Your task to perform on an android device: delete browsing data in the chrome app Image 0: 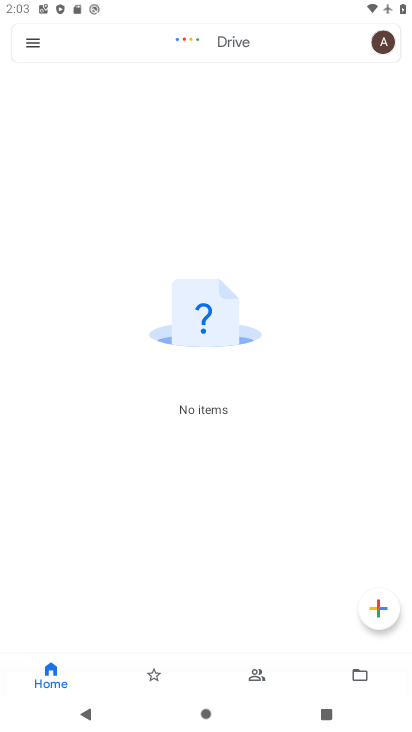
Step 0: press home button
Your task to perform on an android device: delete browsing data in the chrome app Image 1: 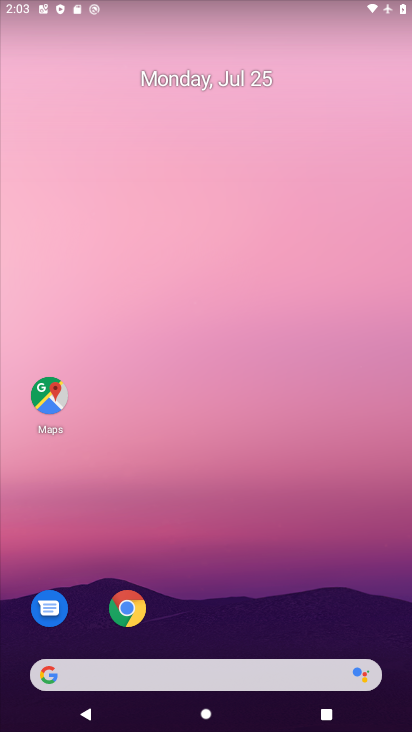
Step 1: drag from (186, 686) to (218, 214)
Your task to perform on an android device: delete browsing data in the chrome app Image 2: 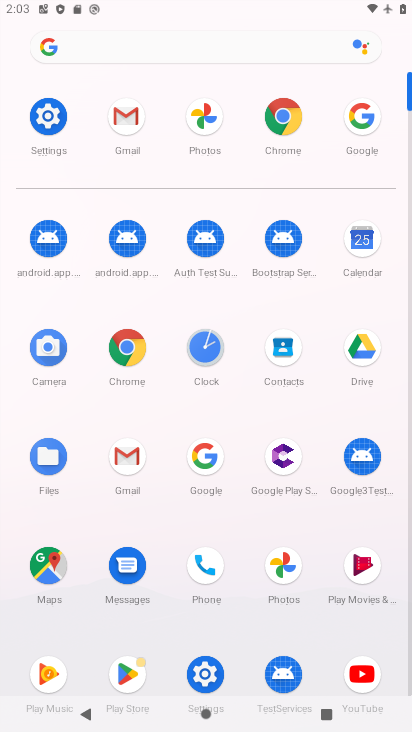
Step 2: click (285, 122)
Your task to perform on an android device: delete browsing data in the chrome app Image 3: 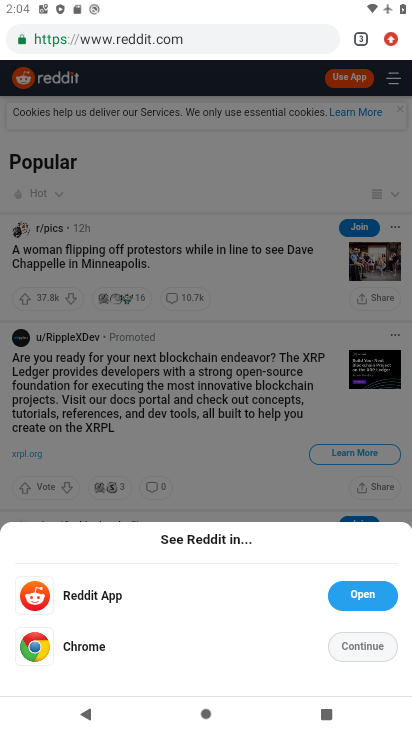
Step 3: click (395, 44)
Your task to perform on an android device: delete browsing data in the chrome app Image 4: 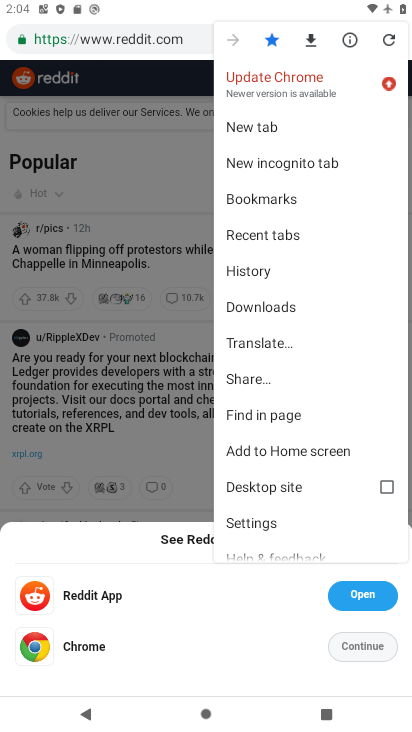
Step 4: click (267, 268)
Your task to perform on an android device: delete browsing data in the chrome app Image 5: 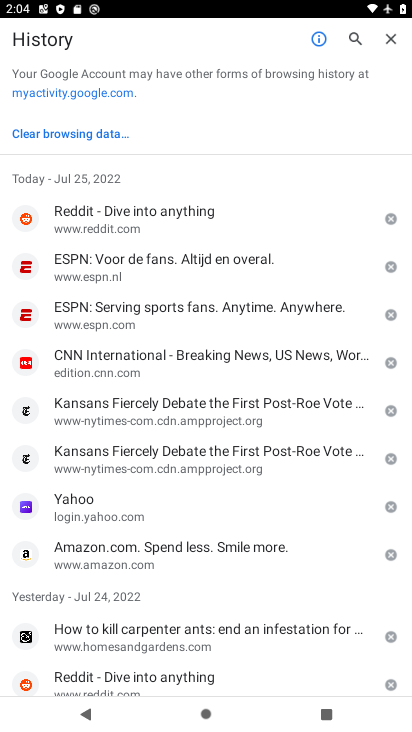
Step 5: click (81, 131)
Your task to perform on an android device: delete browsing data in the chrome app Image 6: 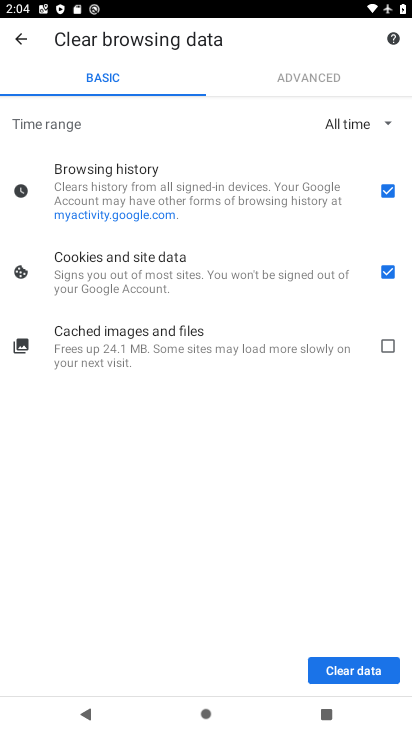
Step 6: click (384, 277)
Your task to perform on an android device: delete browsing data in the chrome app Image 7: 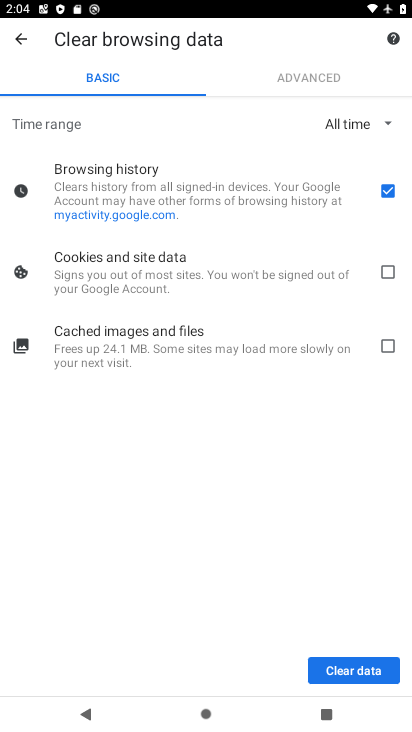
Step 7: click (362, 675)
Your task to perform on an android device: delete browsing data in the chrome app Image 8: 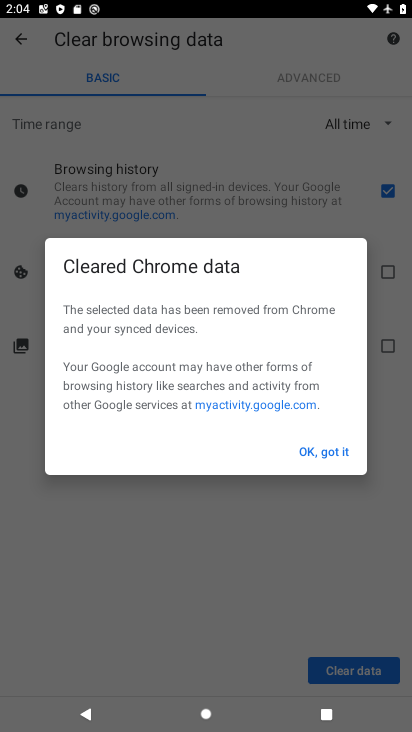
Step 8: click (341, 447)
Your task to perform on an android device: delete browsing data in the chrome app Image 9: 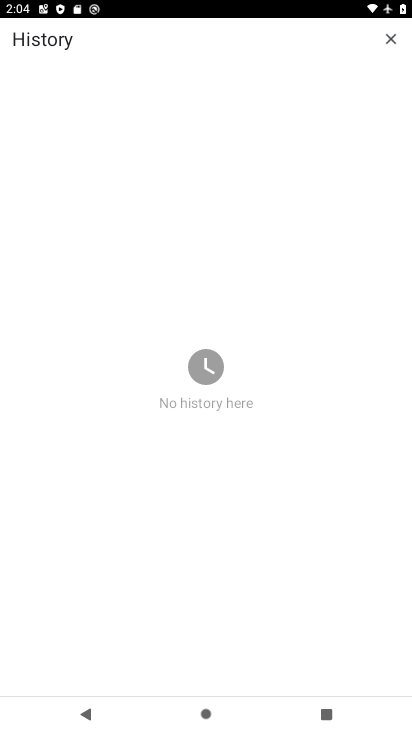
Step 9: task complete